Your task to perform on an android device: Set the phone to "Do not disturb". Image 0: 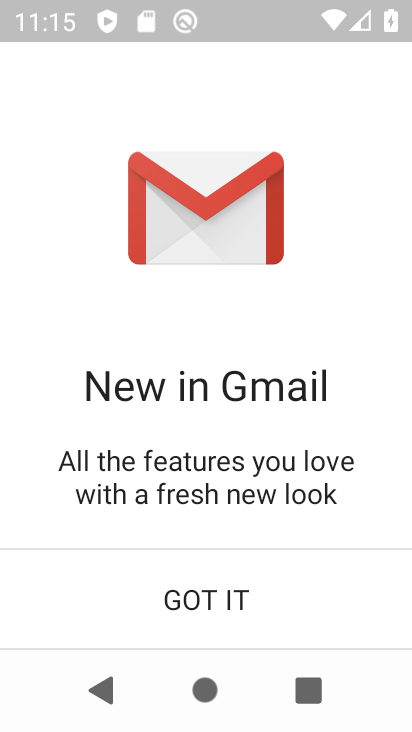
Step 0: press home button
Your task to perform on an android device: Set the phone to "Do not disturb". Image 1: 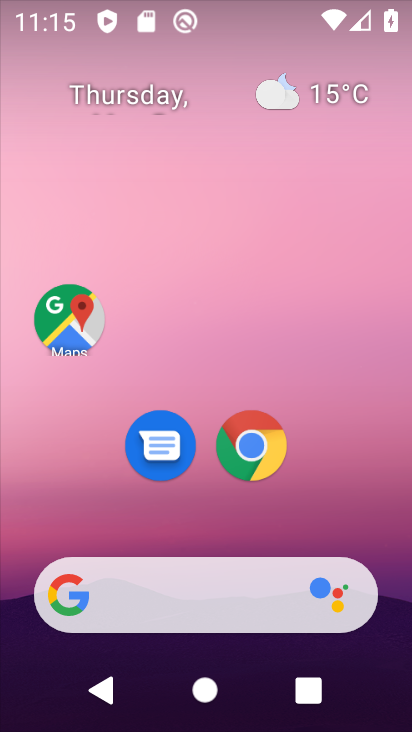
Step 1: drag from (293, 529) to (224, 23)
Your task to perform on an android device: Set the phone to "Do not disturb". Image 2: 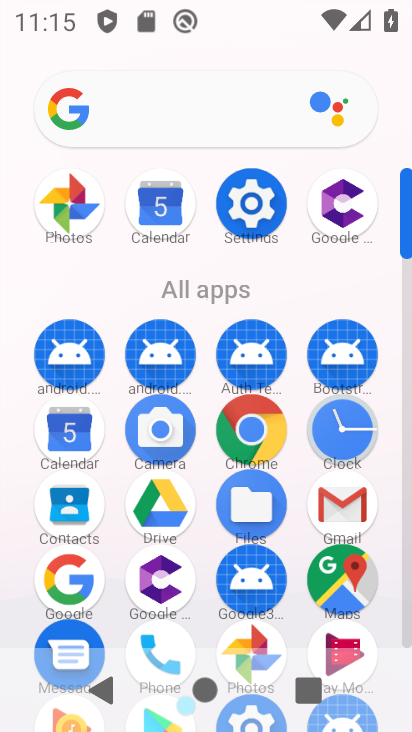
Step 2: click (264, 213)
Your task to perform on an android device: Set the phone to "Do not disturb". Image 3: 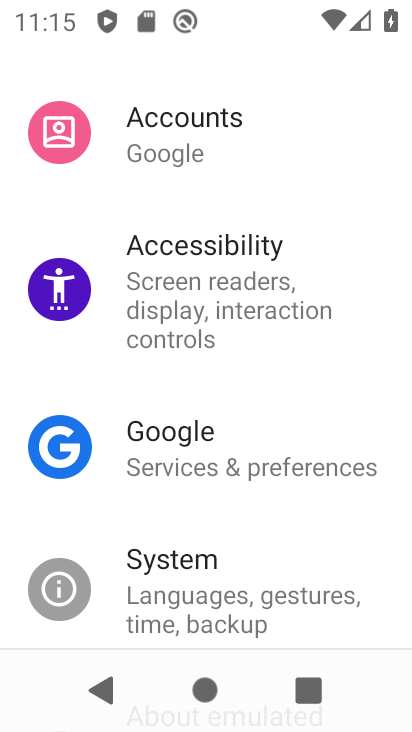
Step 3: drag from (263, 592) to (258, 109)
Your task to perform on an android device: Set the phone to "Do not disturb". Image 4: 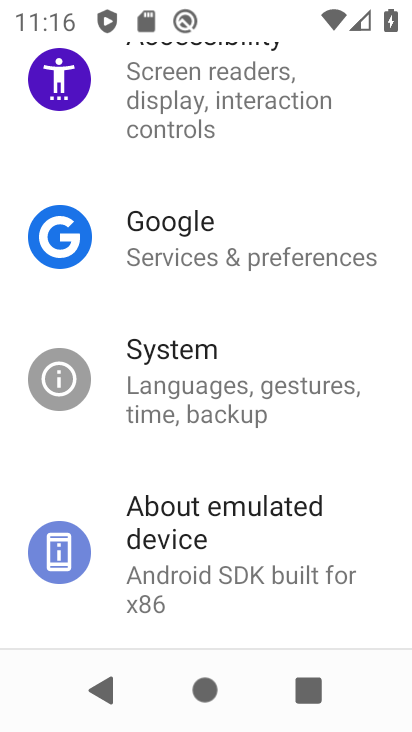
Step 4: drag from (276, 589) to (238, 82)
Your task to perform on an android device: Set the phone to "Do not disturb". Image 5: 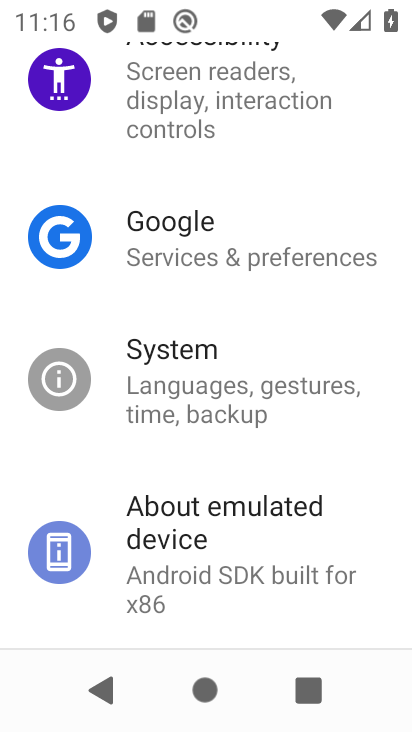
Step 5: drag from (255, 106) to (170, 728)
Your task to perform on an android device: Set the phone to "Do not disturb". Image 6: 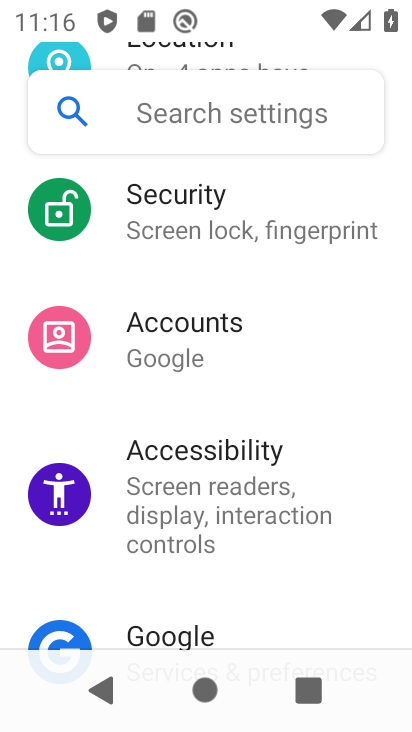
Step 6: drag from (224, 210) to (194, 725)
Your task to perform on an android device: Set the phone to "Do not disturb". Image 7: 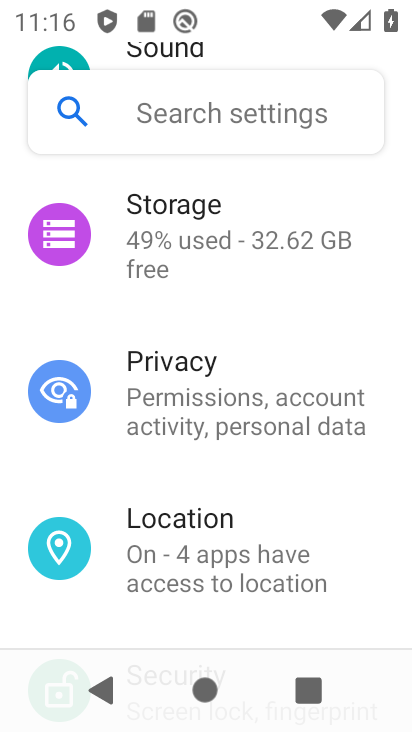
Step 7: drag from (253, 192) to (195, 636)
Your task to perform on an android device: Set the phone to "Do not disturb". Image 8: 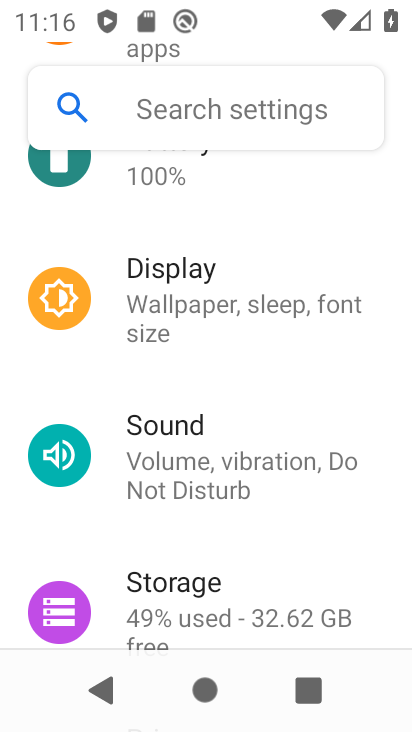
Step 8: click (193, 457)
Your task to perform on an android device: Set the phone to "Do not disturb". Image 9: 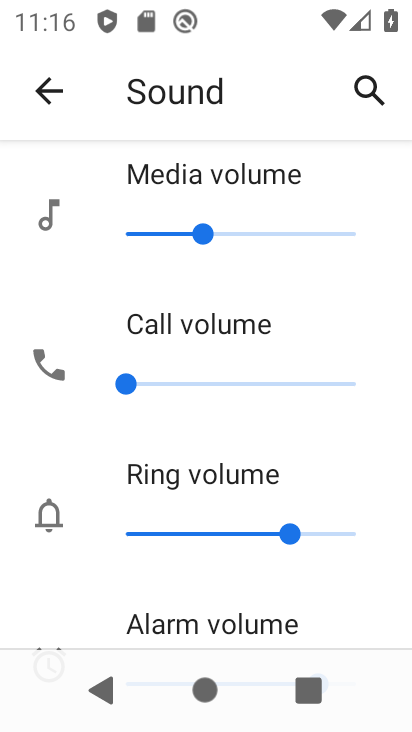
Step 9: drag from (209, 578) to (204, 67)
Your task to perform on an android device: Set the phone to "Do not disturb". Image 10: 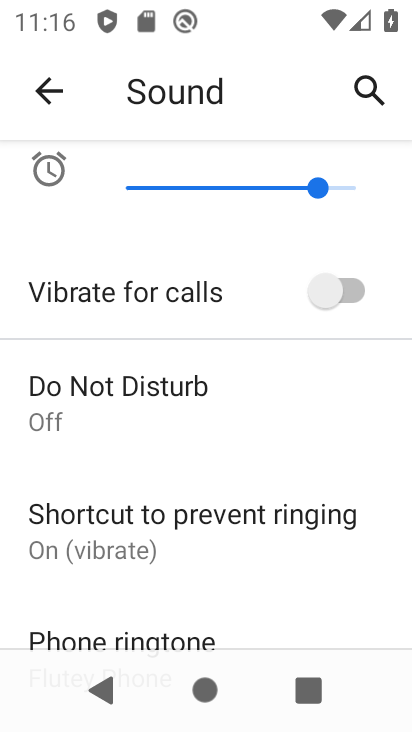
Step 10: click (135, 414)
Your task to perform on an android device: Set the phone to "Do not disturb". Image 11: 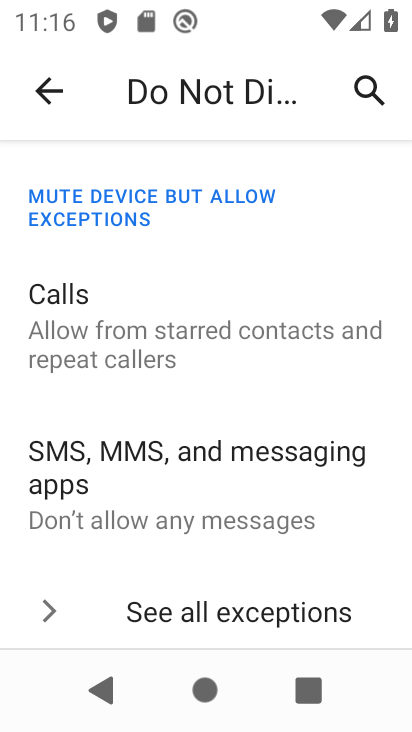
Step 11: drag from (203, 561) to (207, 119)
Your task to perform on an android device: Set the phone to "Do not disturb". Image 12: 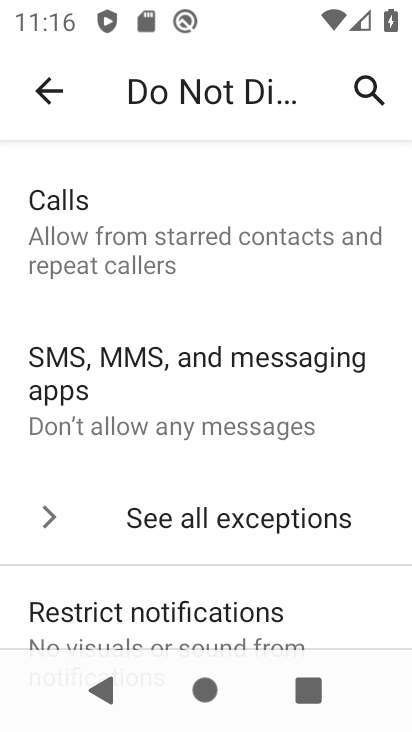
Step 12: drag from (209, 587) to (207, 84)
Your task to perform on an android device: Set the phone to "Do not disturb". Image 13: 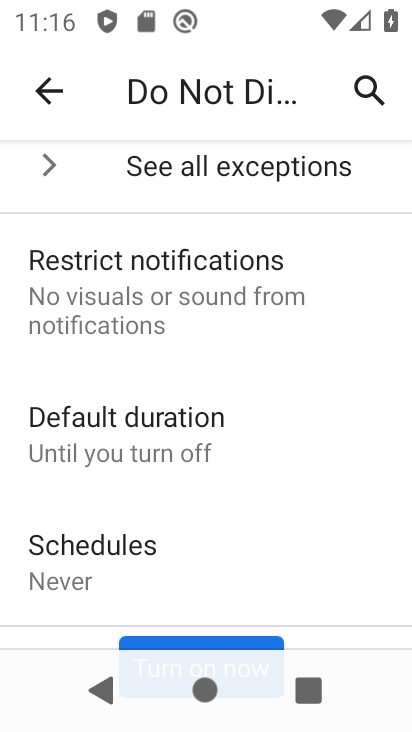
Step 13: drag from (219, 591) to (231, 183)
Your task to perform on an android device: Set the phone to "Do not disturb". Image 14: 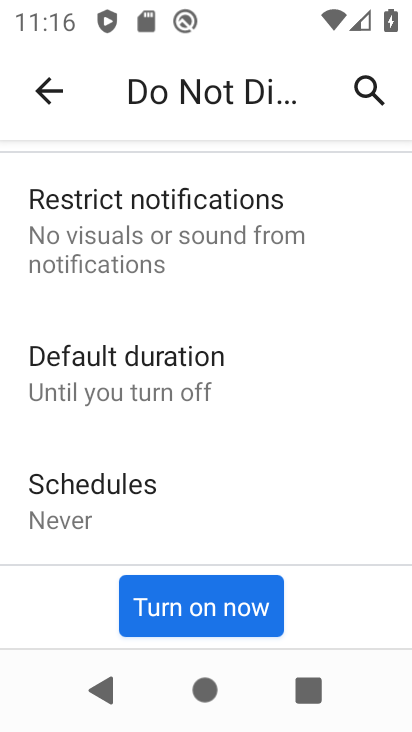
Step 14: click (229, 610)
Your task to perform on an android device: Set the phone to "Do not disturb". Image 15: 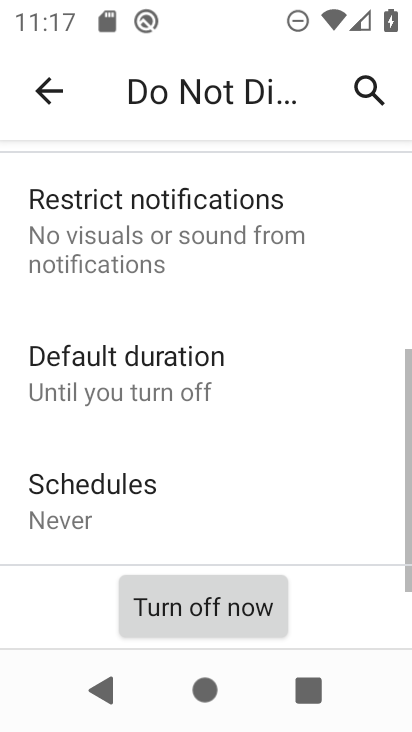
Step 15: task complete